Your task to perform on an android device: Open battery settings Image 0: 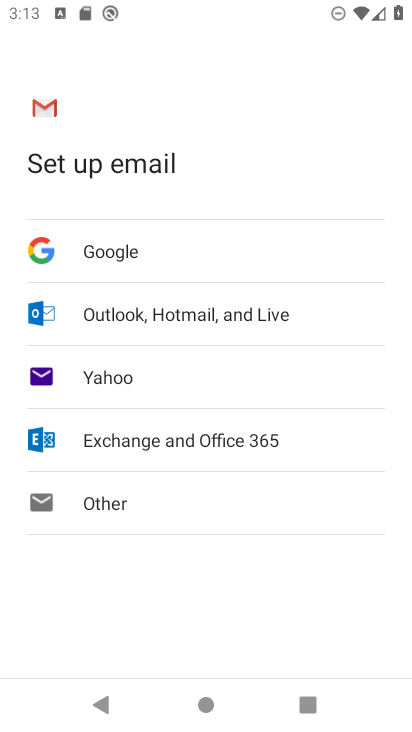
Step 0: press home button
Your task to perform on an android device: Open battery settings Image 1: 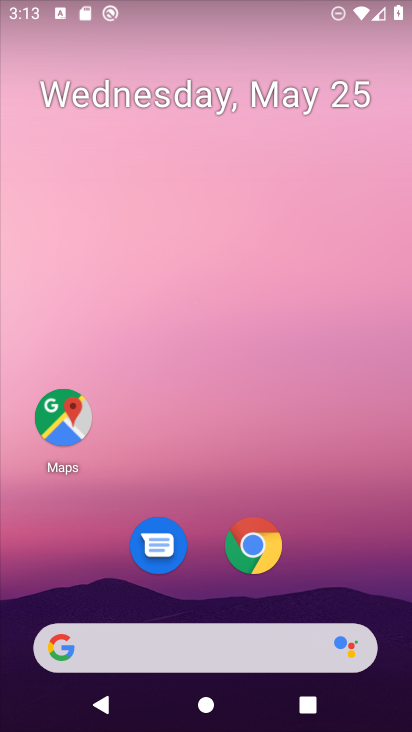
Step 1: drag from (348, 563) to (292, 100)
Your task to perform on an android device: Open battery settings Image 2: 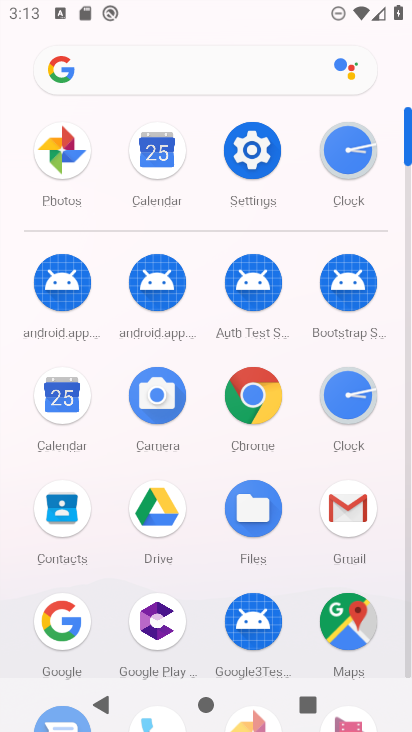
Step 2: click (252, 176)
Your task to perform on an android device: Open battery settings Image 3: 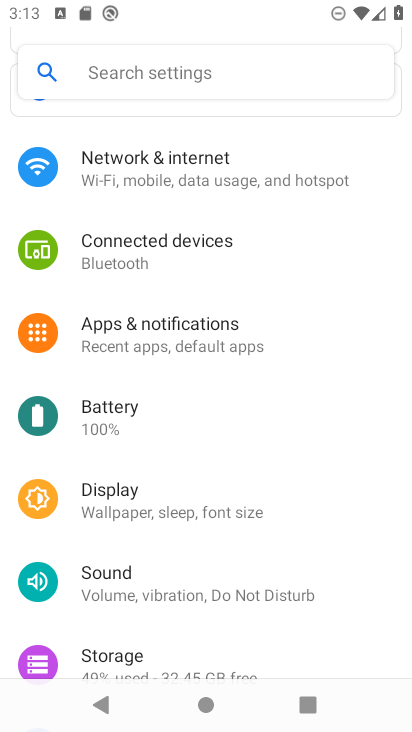
Step 3: click (176, 421)
Your task to perform on an android device: Open battery settings Image 4: 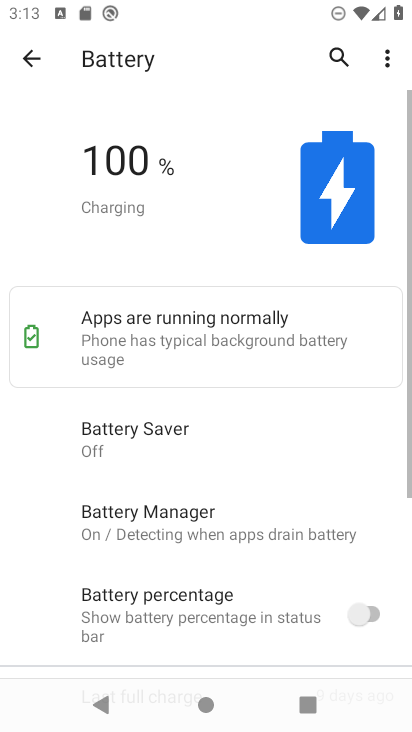
Step 4: task complete